Your task to perform on an android device: turn off location history Image 0: 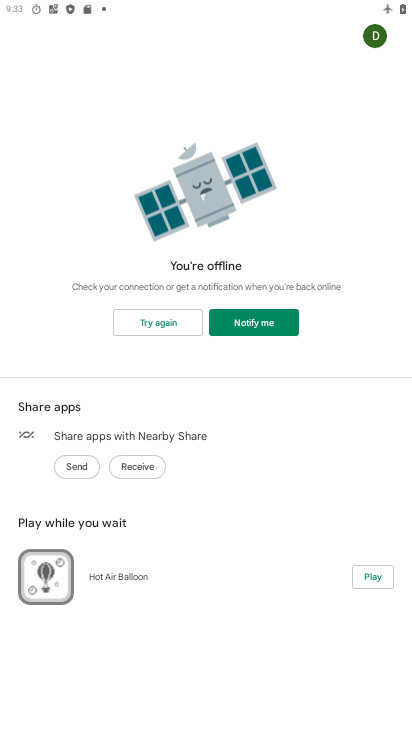
Step 0: press home button
Your task to perform on an android device: turn off location history Image 1: 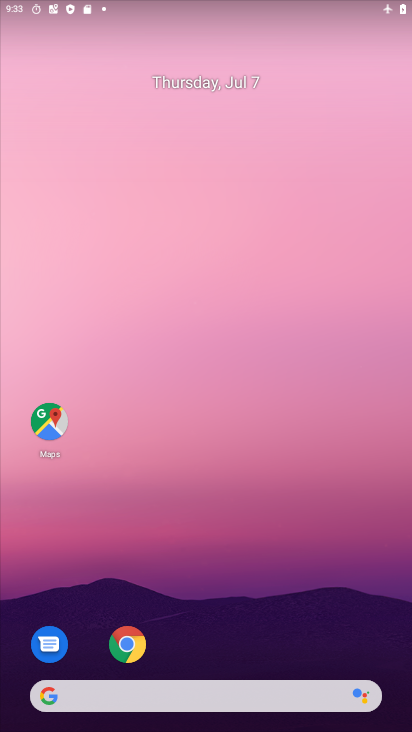
Step 1: drag from (301, 614) to (256, 122)
Your task to perform on an android device: turn off location history Image 2: 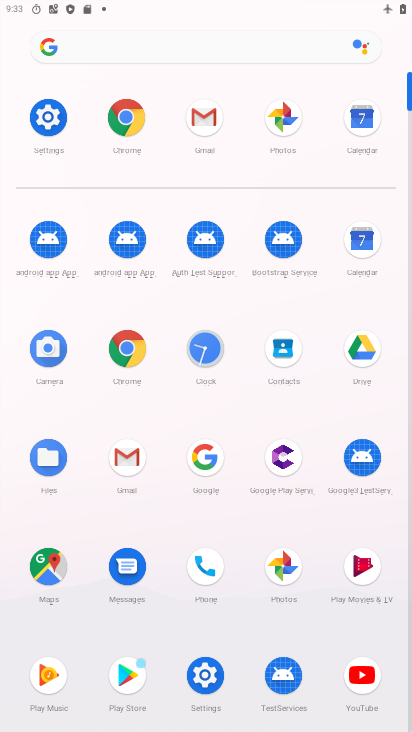
Step 2: click (38, 109)
Your task to perform on an android device: turn off location history Image 3: 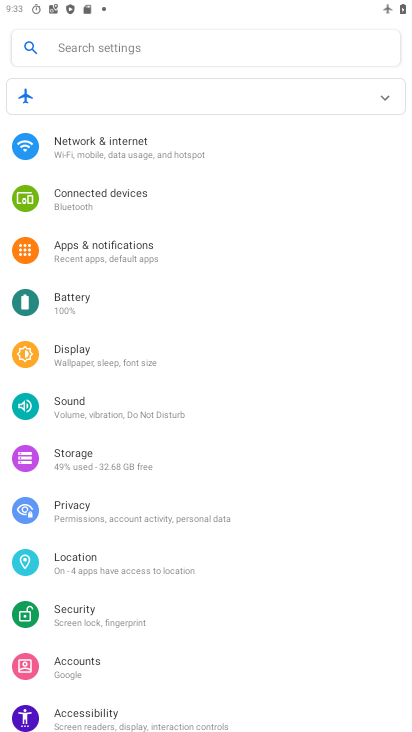
Step 3: click (88, 561)
Your task to perform on an android device: turn off location history Image 4: 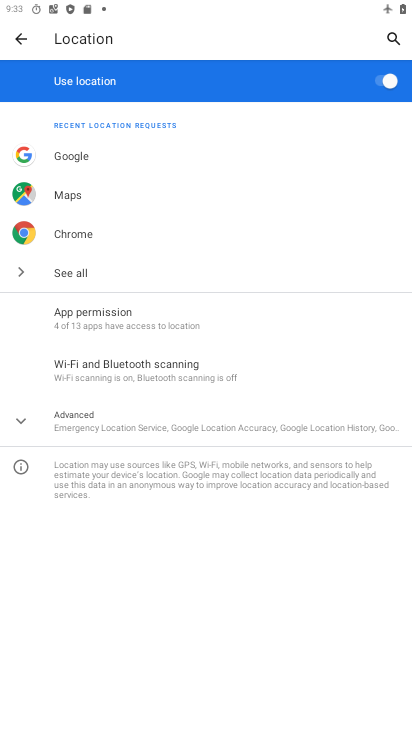
Step 4: click (82, 417)
Your task to perform on an android device: turn off location history Image 5: 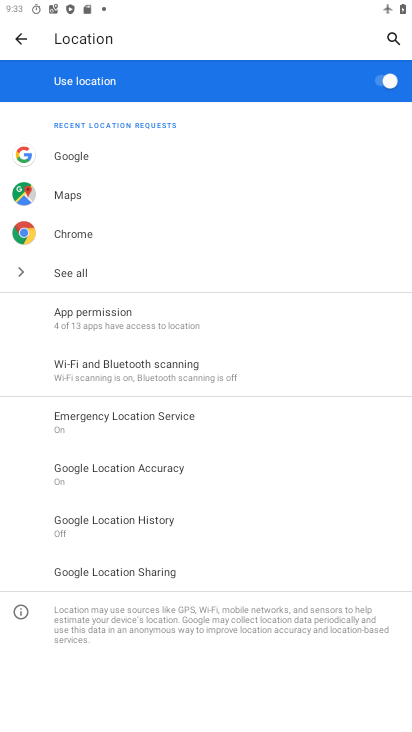
Step 5: click (138, 520)
Your task to perform on an android device: turn off location history Image 6: 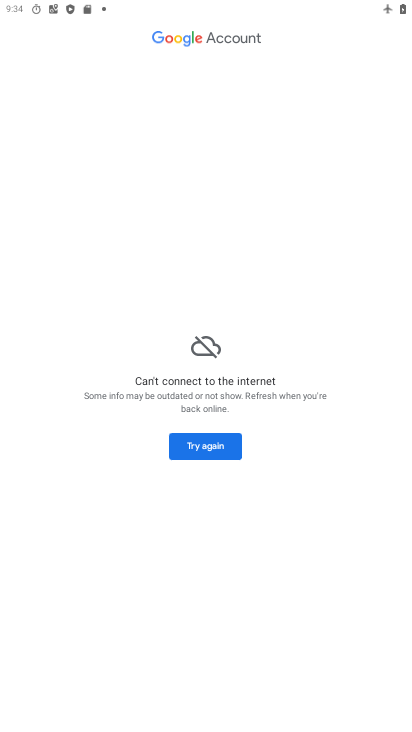
Step 6: task complete